Your task to perform on an android device: Toggle the flashlight Image 0: 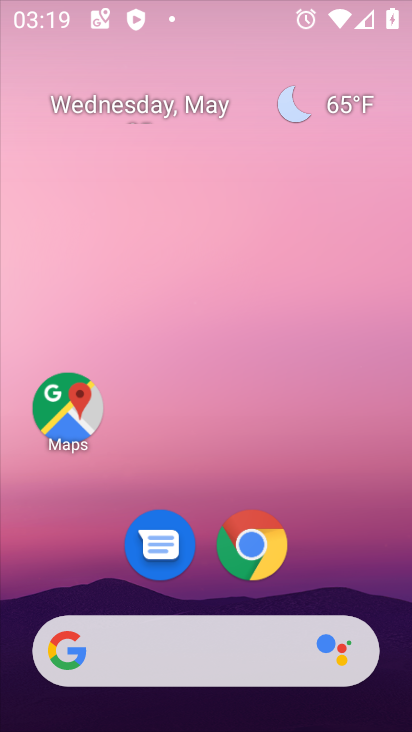
Step 0: drag from (335, 539) to (244, 18)
Your task to perform on an android device: Toggle the flashlight Image 1: 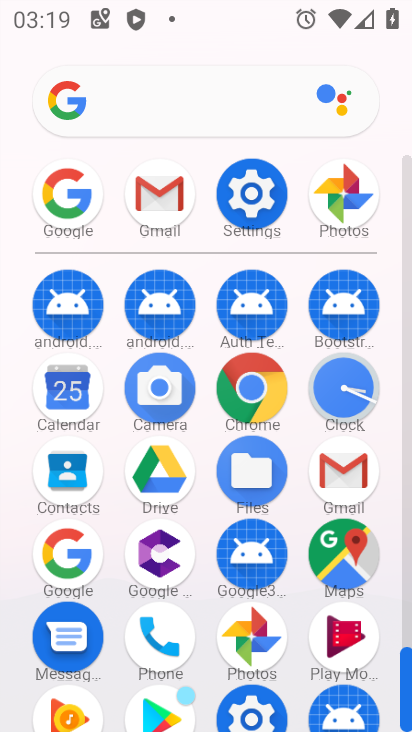
Step 1: task complete